Your task to perform on an android device: open device folders in google photos Image 0: 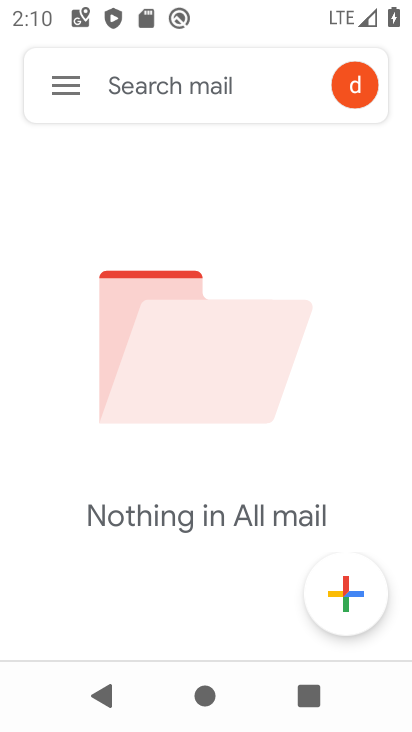
Step 0: press home button
Your task to perform on an android device: open device folders in google photos Image 1: 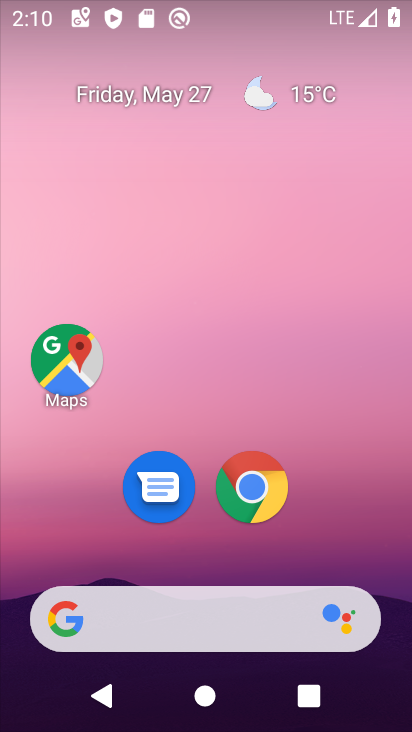
Step 1: drag from (356, 478) to (218, 108)
Your task to perform on an android device: open device folders in google photos Image 2: 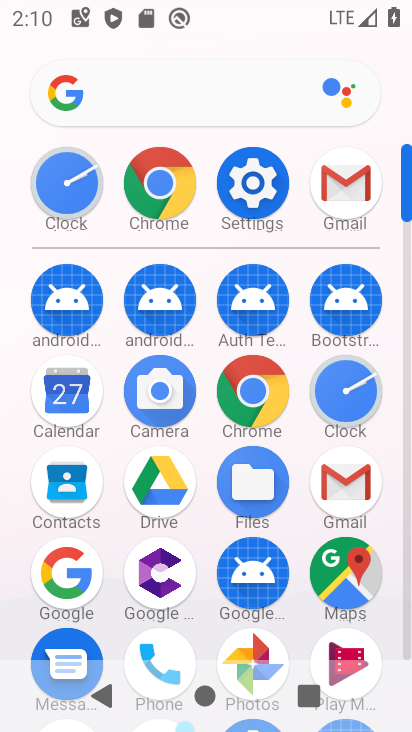
Step 2: click (249, 657)
Your task to perform on an android device: open device folders in google photos Image 3: 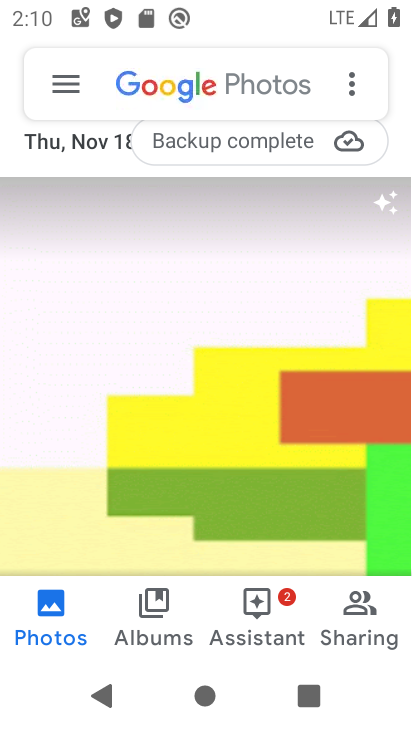
Step 3: click (56, 68)
Your task to perform on an android device: open device folders in google photos Image 4: 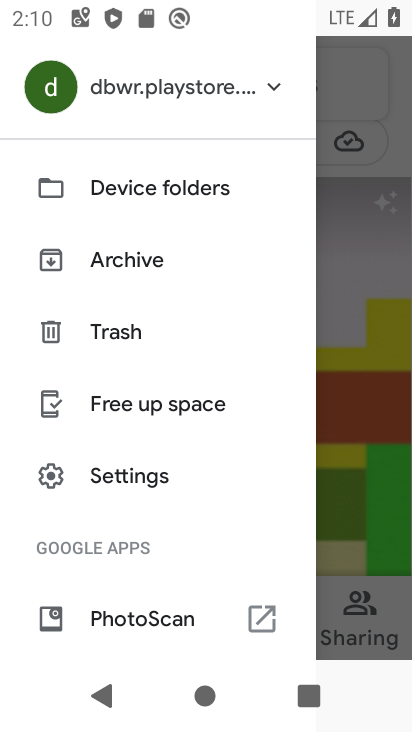
Step 4: click (145, 198)
Your task to perform on an android device: open device folders in google photos Image 5: 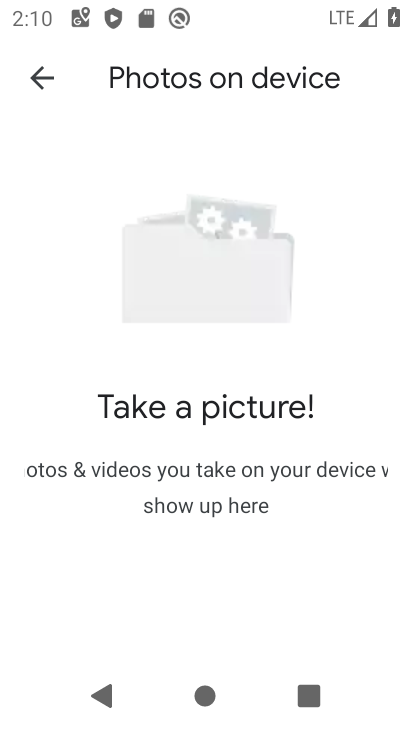
Step 5: task complete